Your task to perform on an android device: Go to display settings Image 0: 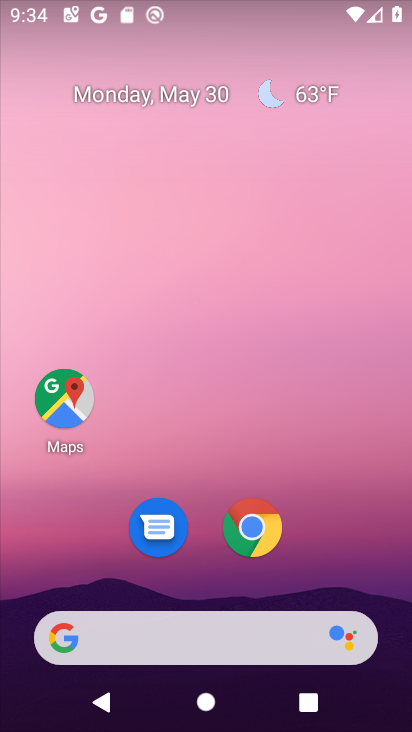
Step 0: drag from (295, 589) to (302, 193)
Your task to perform on an android device: Go to display settings Image 1: 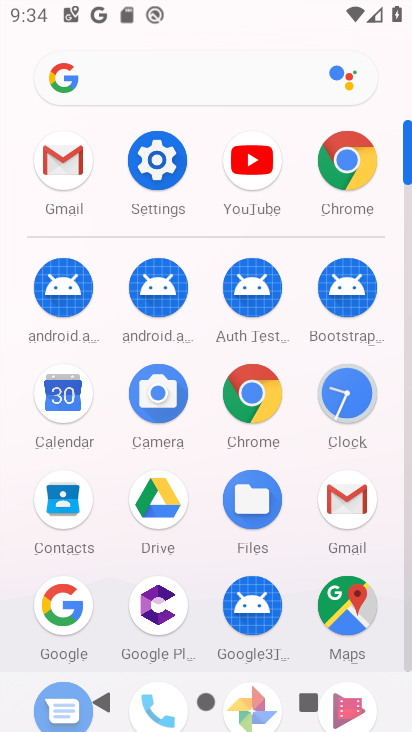
Step 1: click (158, 162)
Your task to perform on an android device: Go to display settings Image 2: 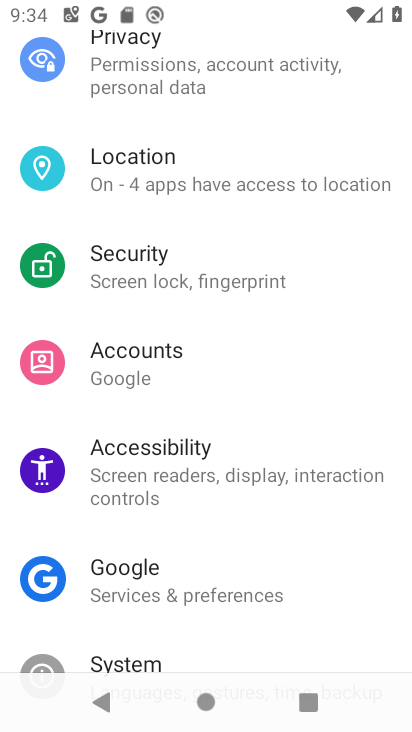
Step 2: drag from (183, 219) to (149, 523)
Your task to perform on an android device: Go to display settings Image 3: 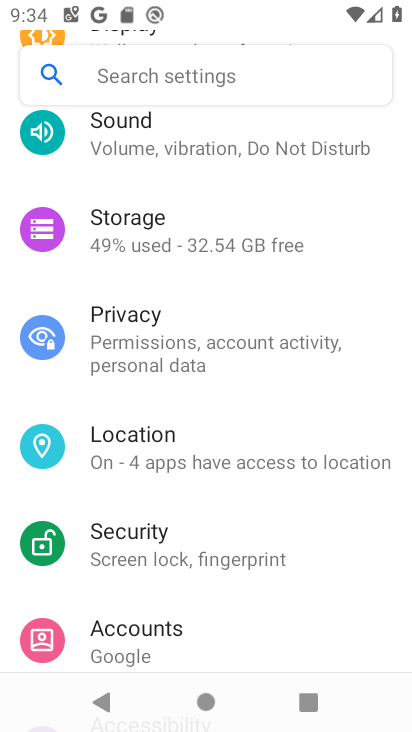
Step 3: drag from (193, 115) to (212, 419)
Your task to perform on an android device: Go to display settings Image 4: 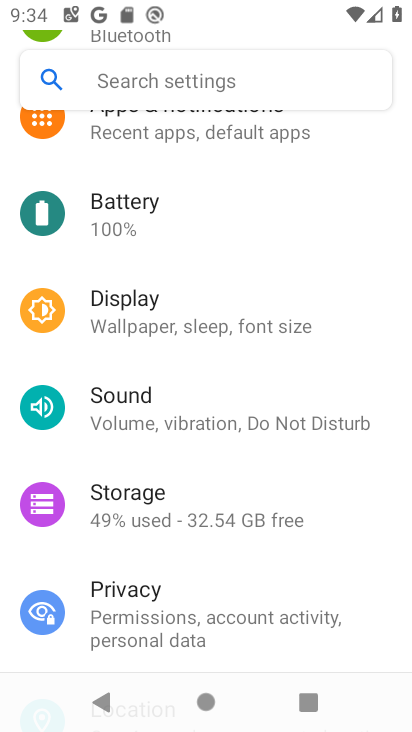
Step 4: click (155, 306)
Your task to perform on an android device: Go to display settings Image 5: 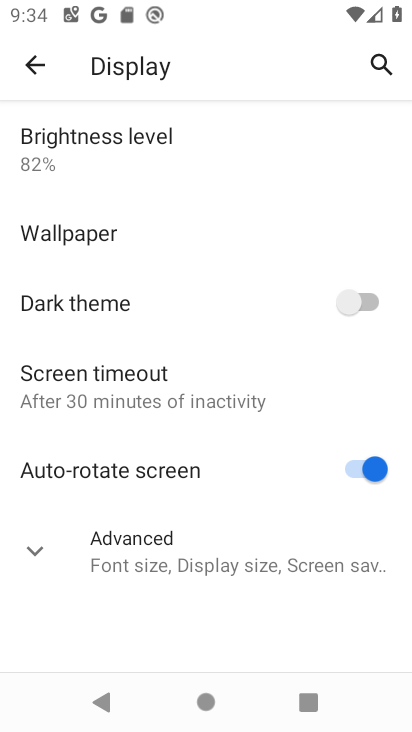
Step 5: task complete